Your task to perform on an android device: open app "The Home Depot" (install if not already installed), go to login, and select forgot password Image 0: 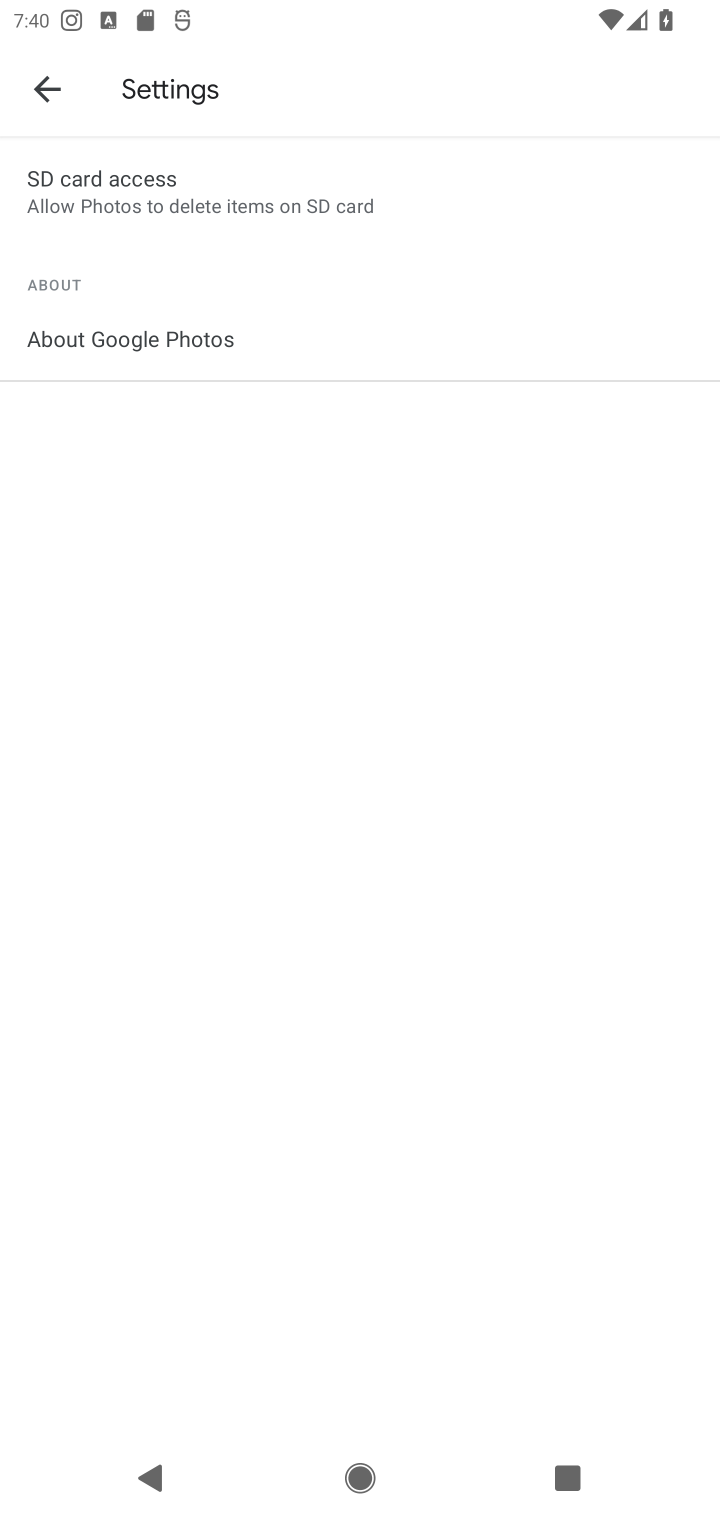
Step 0: press back button
Your task to perform on an android device: open app "The Home Depot" (install if not already installed), go to login, and select forgot password Image 1: 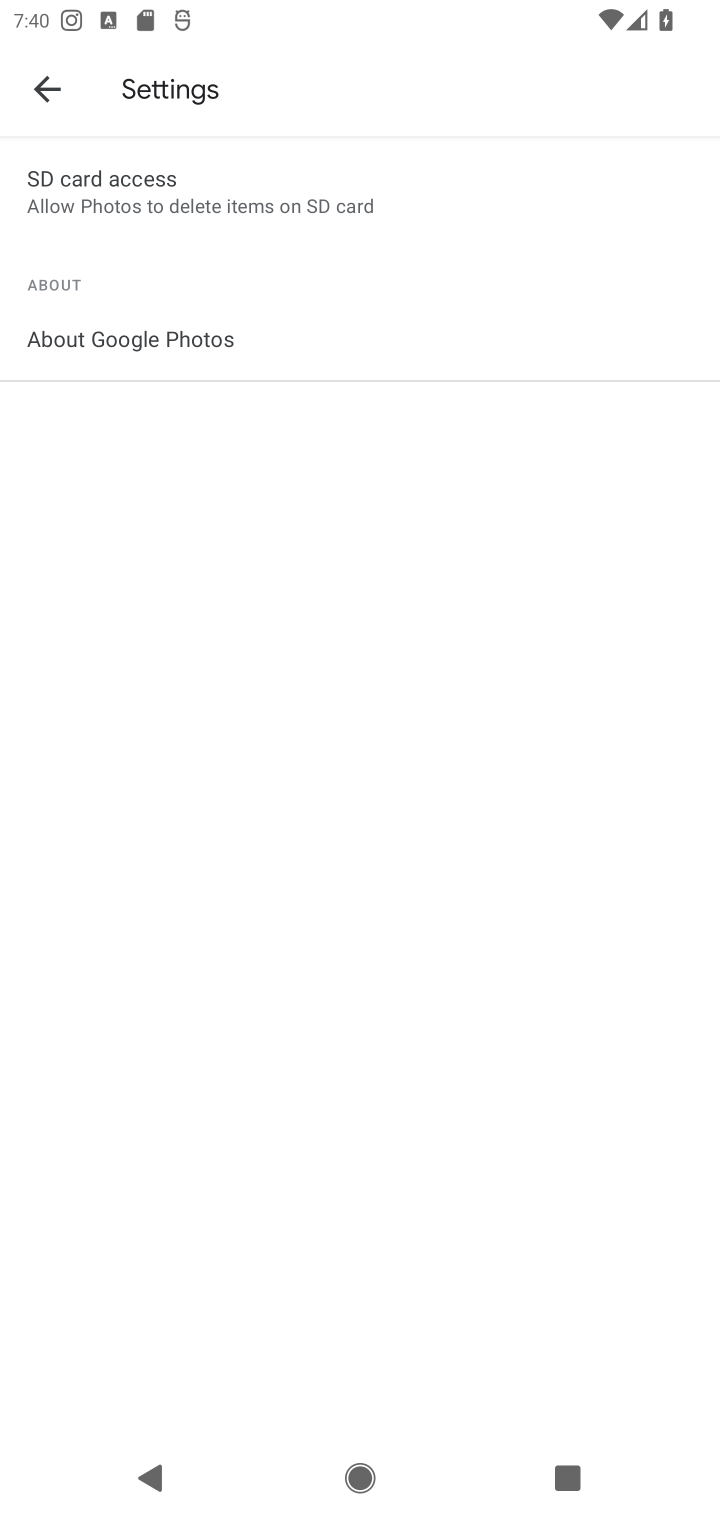
Step 1: press home button
Your task to perform on an android device: open app "The Home Depot" (install if not already installed), go to login, and select forgot password Image 2: 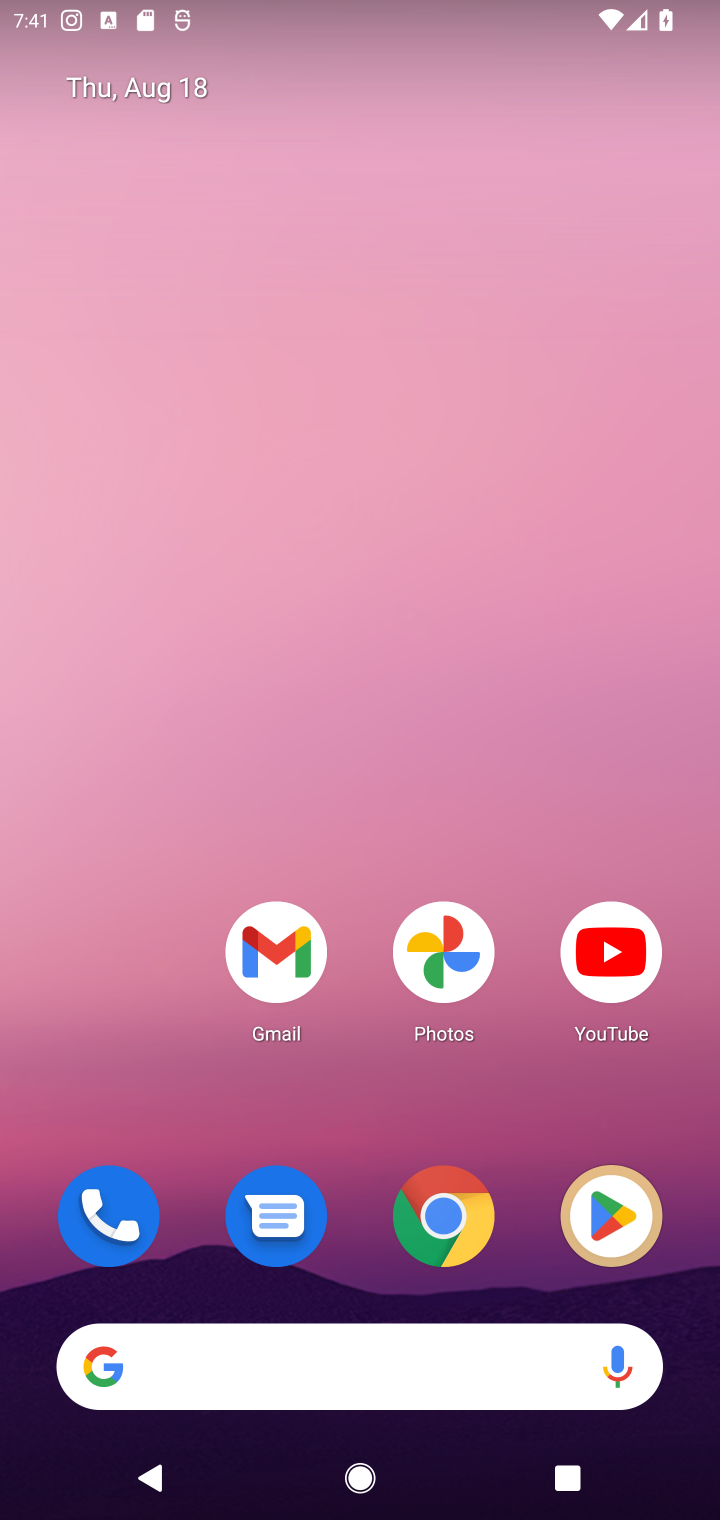
Step 2: click (600, 1184)
Your task to perform on an android device: open app "The Home Depot" (install if not already installed), go to login, and select forgot password Image 3: 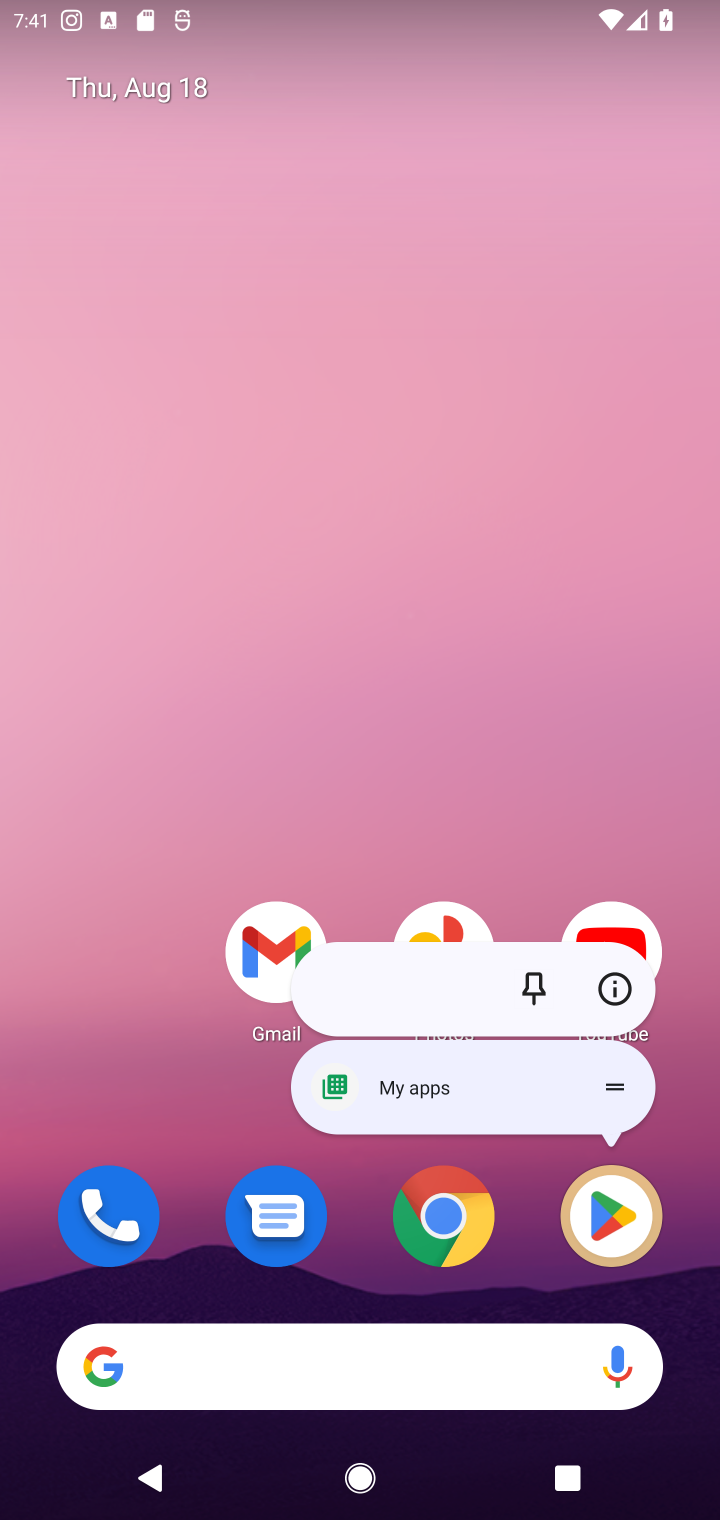
Step 3: click (608, 1214)
Your task to perform on an android device: open app "The Home Depot" (install if not already installed), go to login, and select forgot password Image 4: 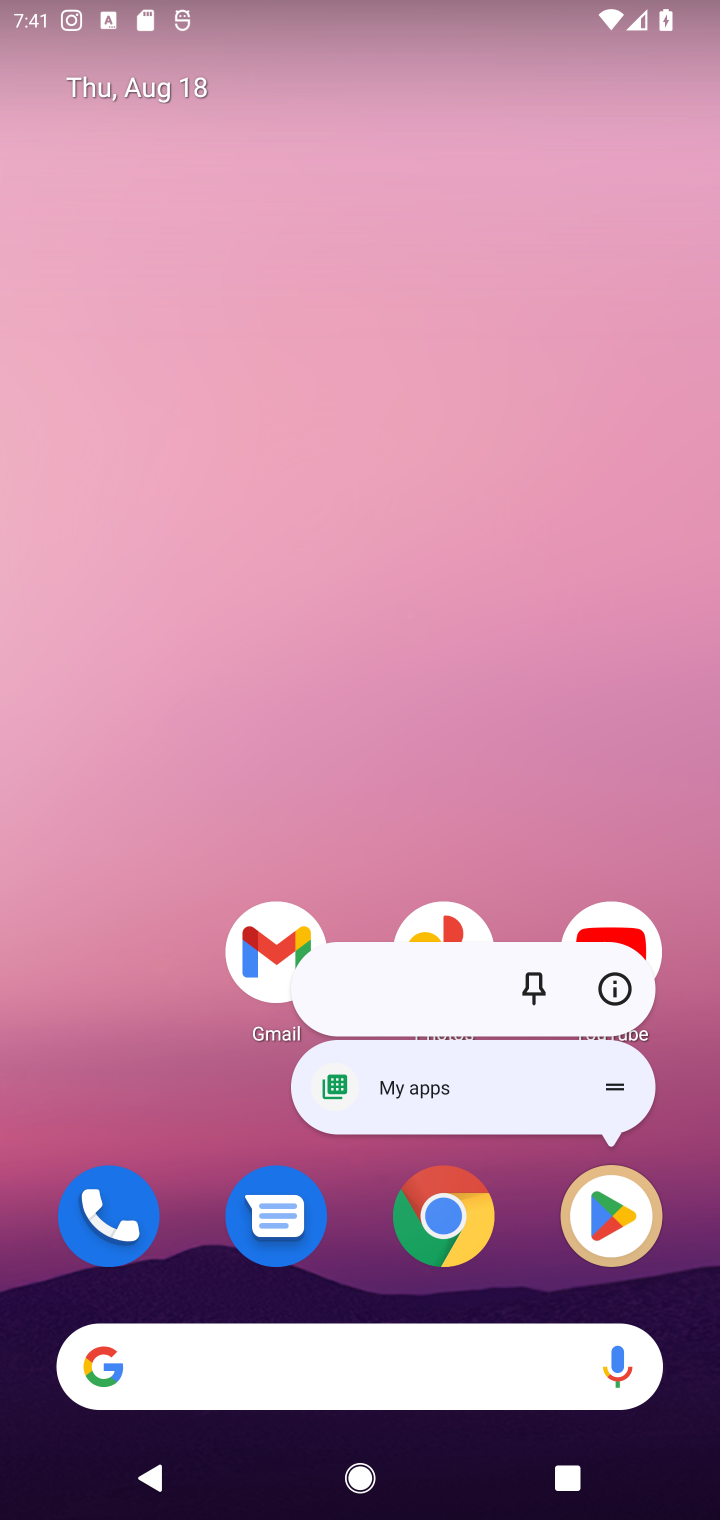
Step 4: click (621, 1260)
Your task to perform on an android device: open app "The Home Depot" (install if not already installed), go to login, and select forgot password Image 5: 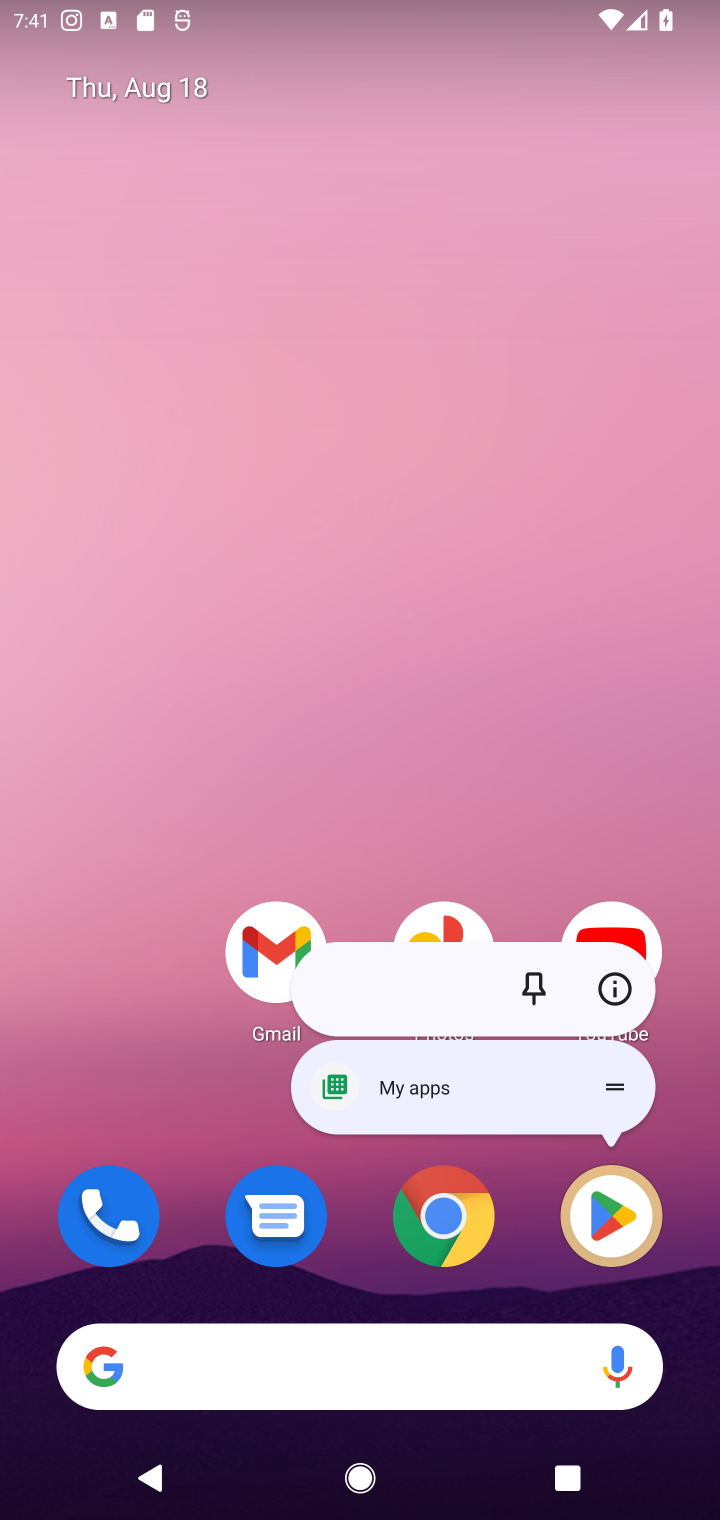
Step 5: click (611, 1221)
Your task to perform on an android device: open app "The Home Depot" (install if not already installed), go to login, and select forgot password Image 6: 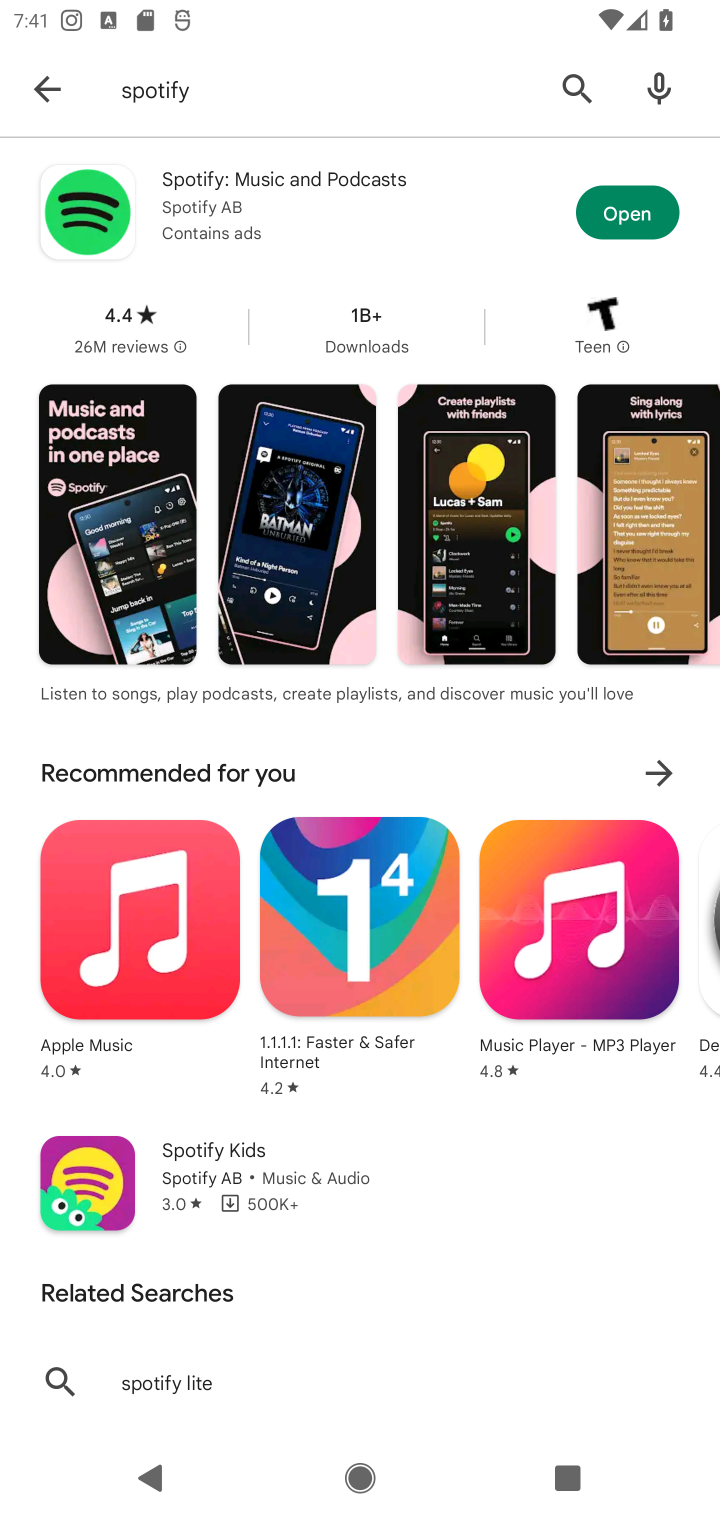
Step 6: click (586, 90)
Your task to perform on an android device: open app "The Home Depot" (install if not already installed), go to login, and select forgot password Image 7: 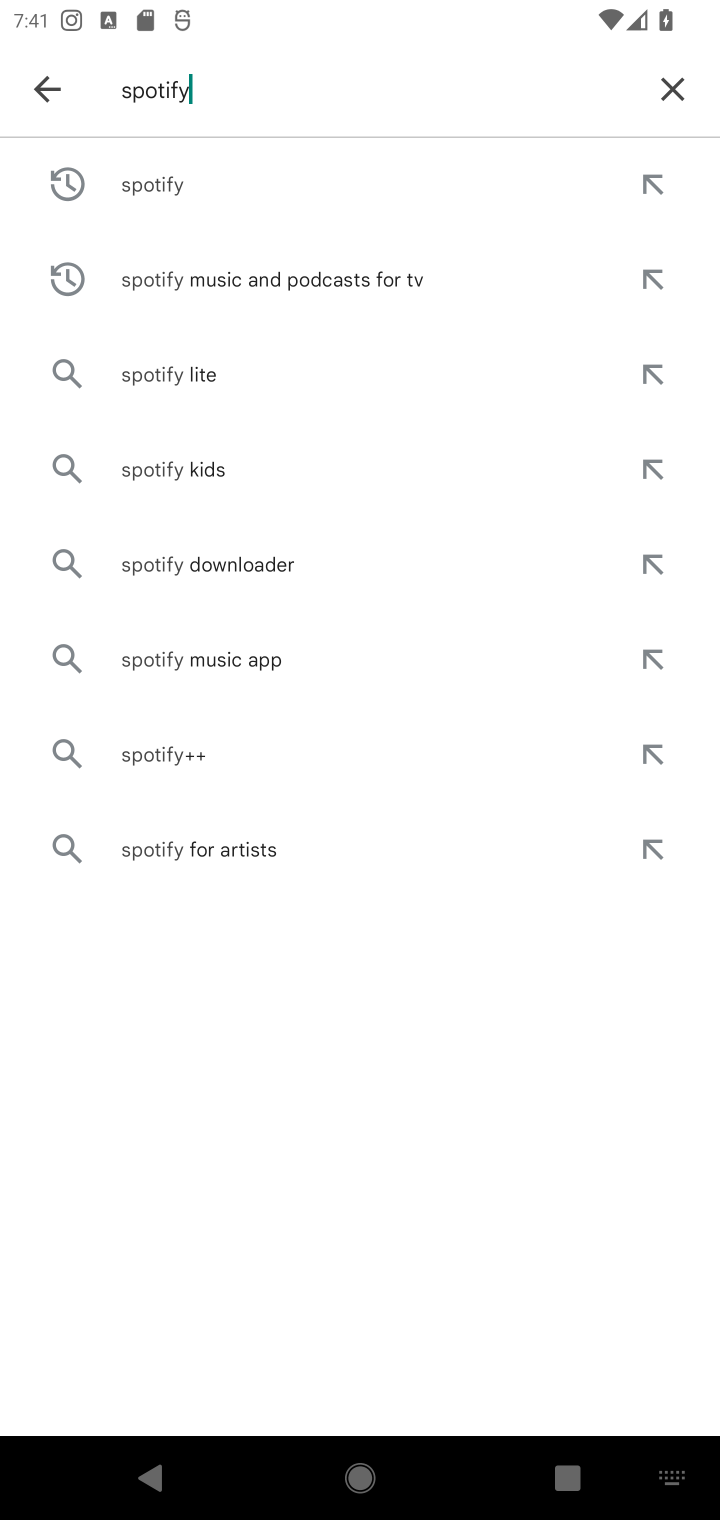
Step 7: click (679, 88)
Your task to perform on an android device: open app "The Home Depot" (install if not already installed), go to login, and select forgot password Image 8: 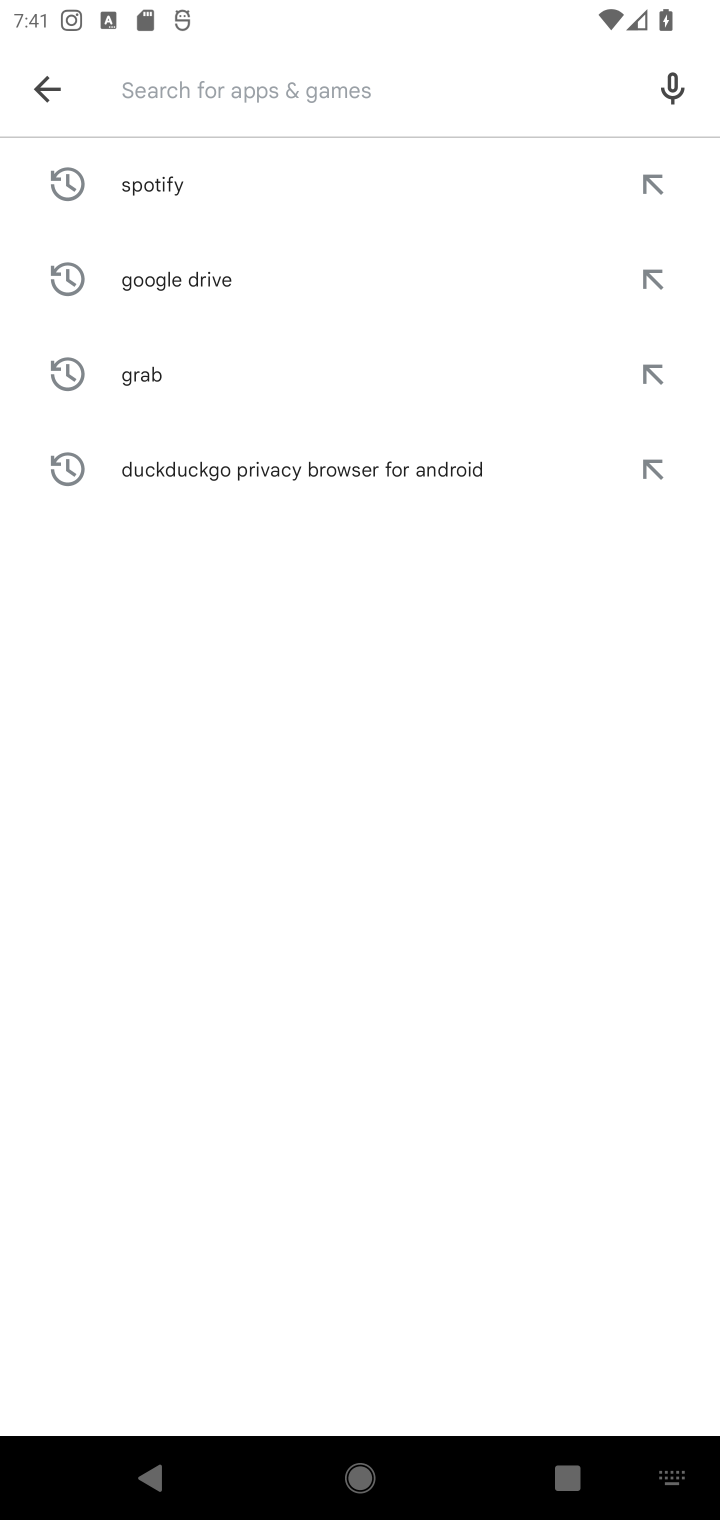
Step 8: type "The Home Depot"
Your task to perform on an android device: open app "The Home Depot" (install if not already installed), go to login, and select forgot password Image 9: 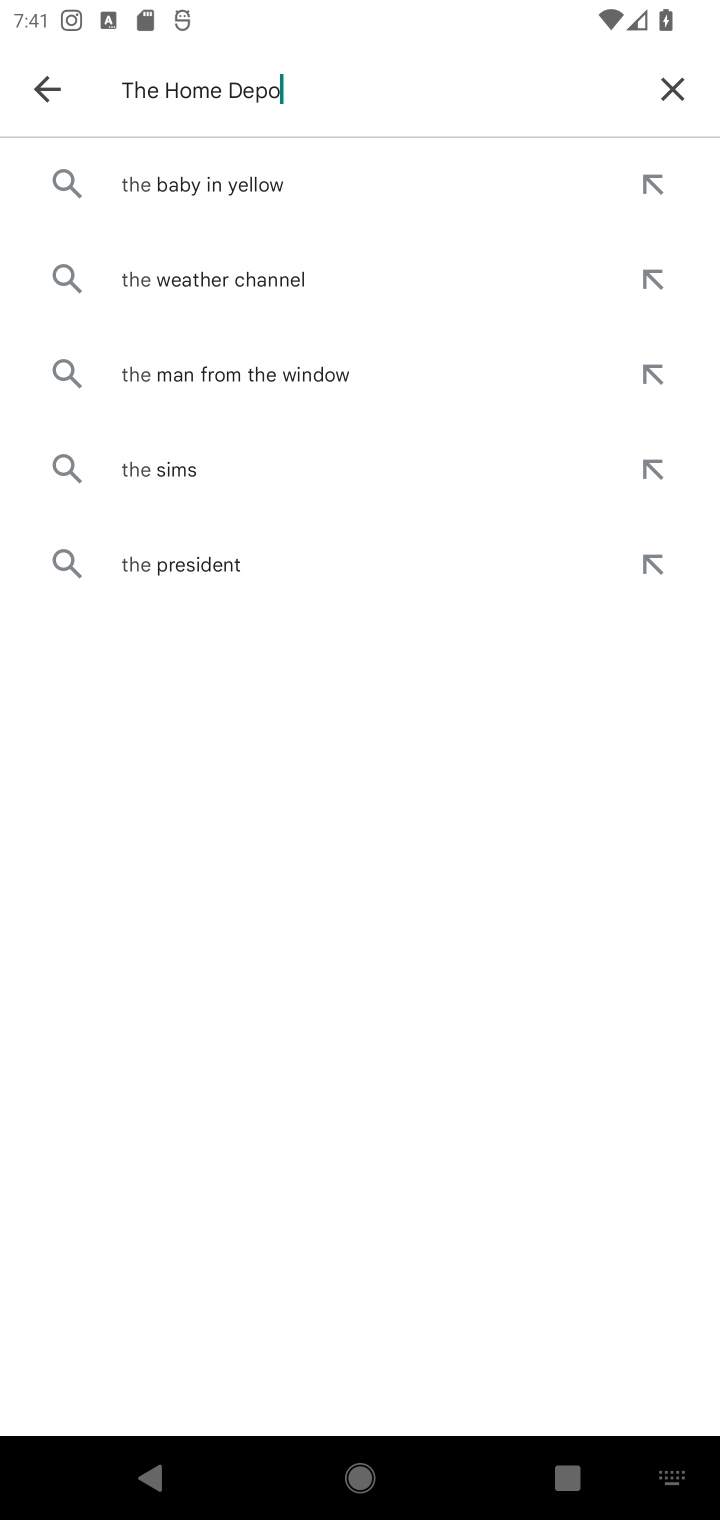
Step 9: type ""
Your task to perform on an android device: open app "The Home Depot" (install if not already installed), go to login, and select forgot password Image 10: 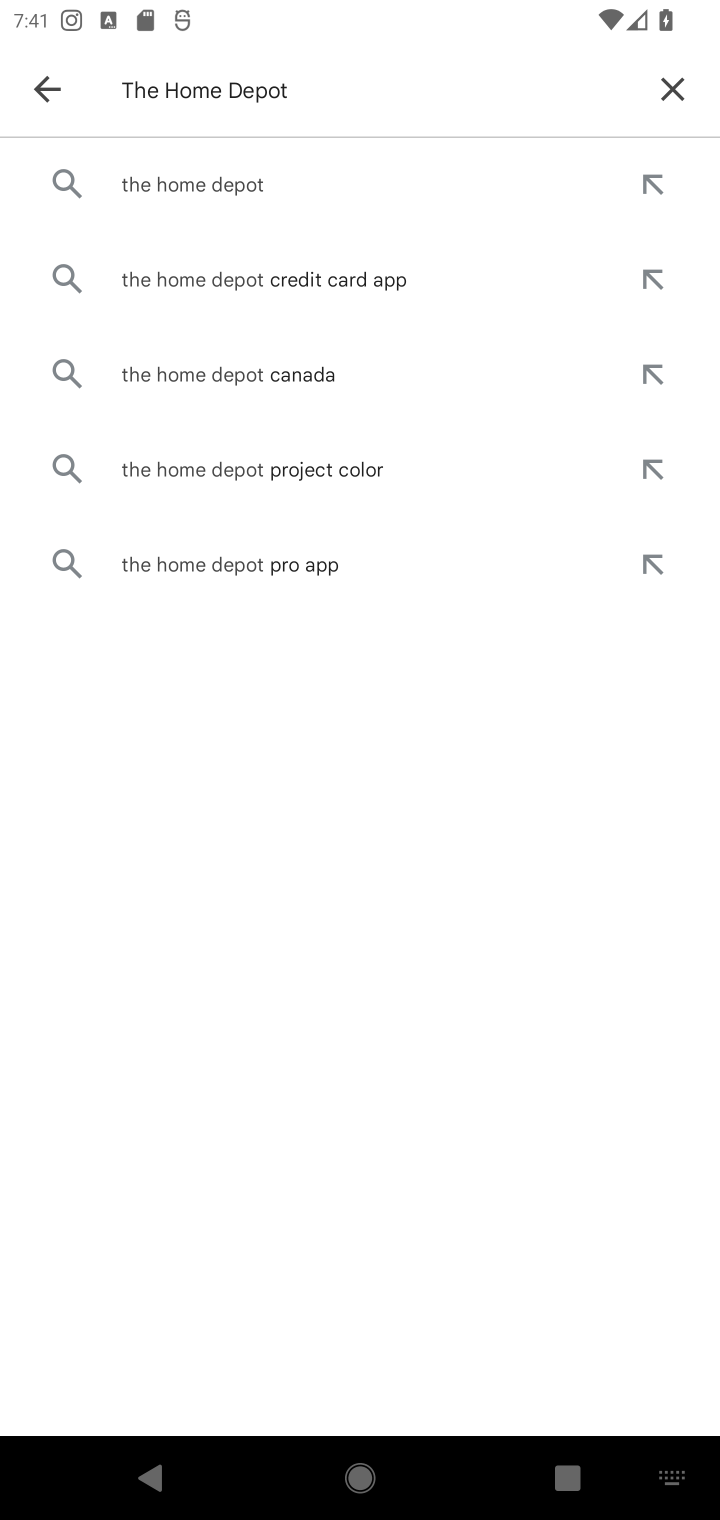
Step 10: click (314, 166)
Your task to perform on an android device: open app "The Home Depot" (install if not already installed), go to login, and select forgot password Image 11: 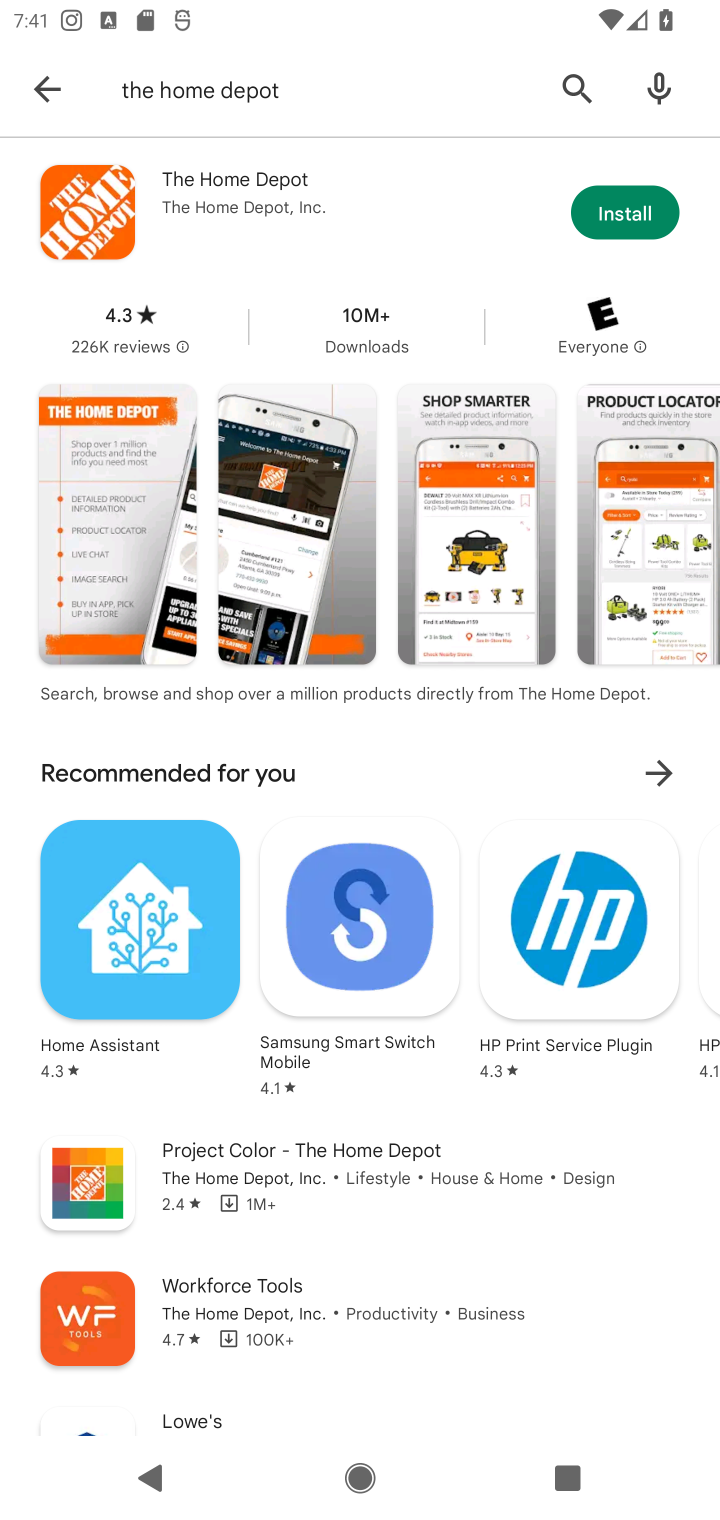
Step 11: click (614, 206)
Your task to perform on an android device: open app "The Home Depot" (install if not already installed), go to login, and select forgot password Image 12: 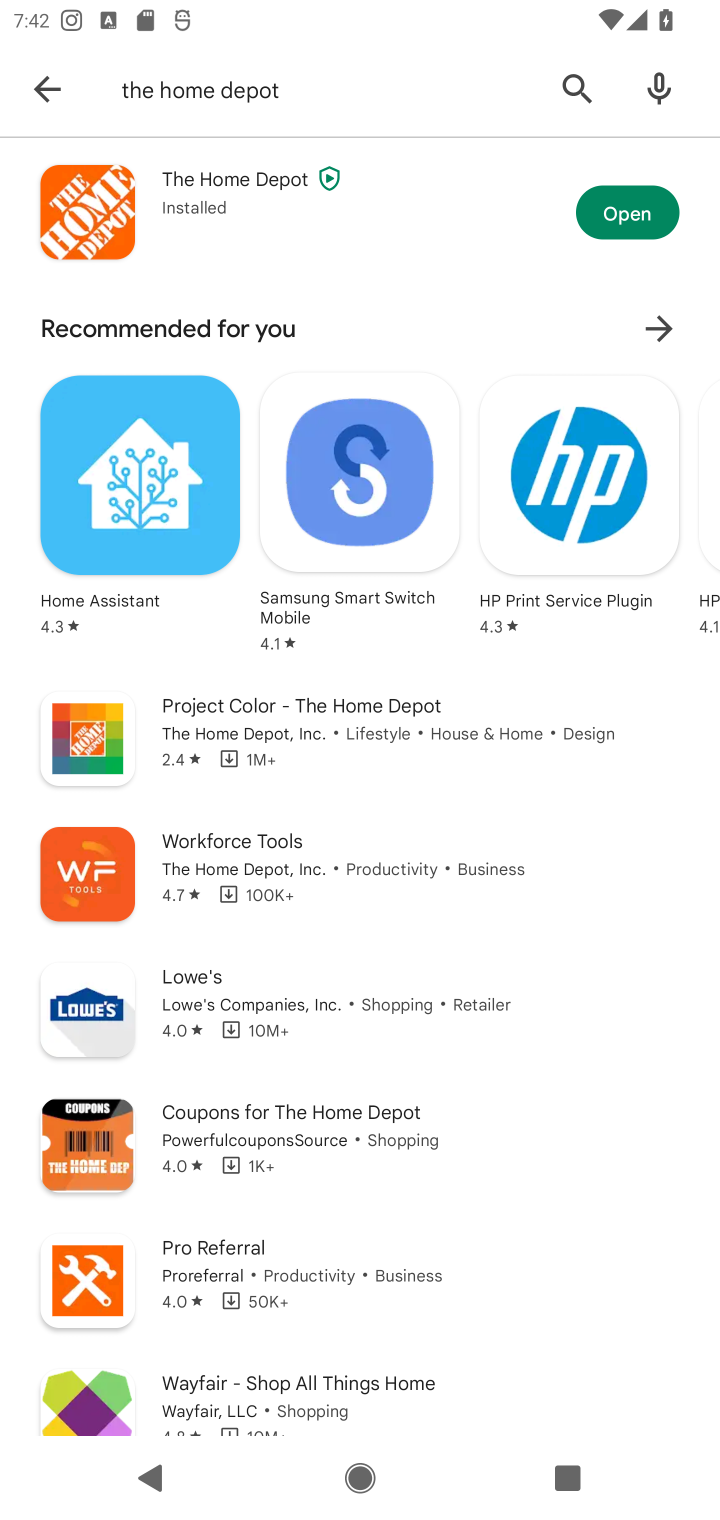
Step 12: click (603, 219)
Your task to perform on an android device: open app "The Home Depot" (install if not already installed), go to login, and select forgot password Image 13: 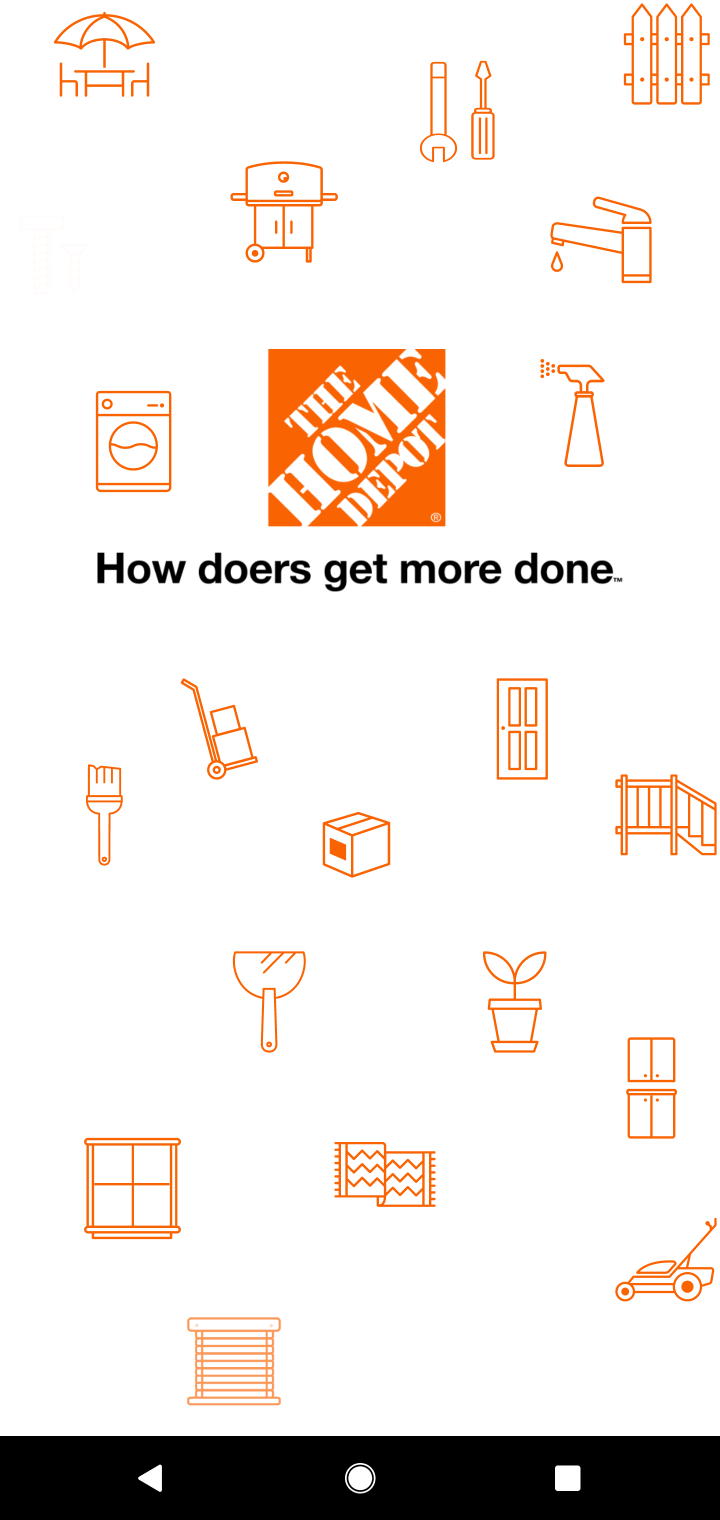
Step 13: task complete